Your task to perform on an android device: Go to internet settings Image 0: 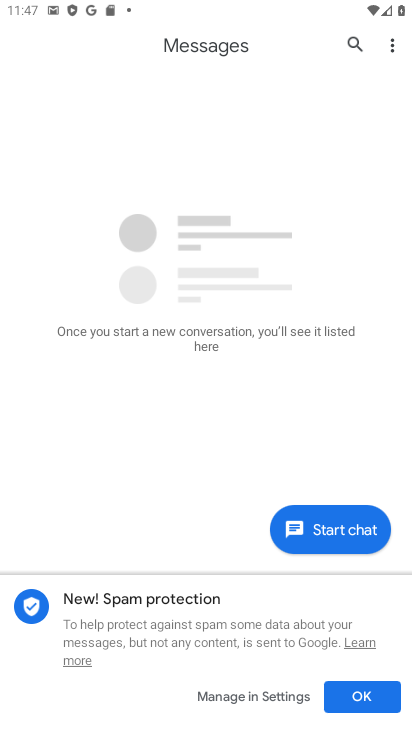
Step 0: press home button
Your task to perform on an android device: Go to internet settings Image 1: 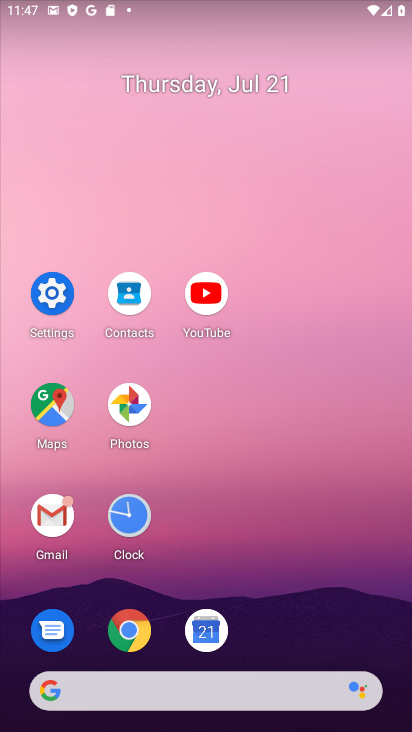
Step 1: click (54, 286)
Your task to perform on an android device: Go to internet settings Image 2: 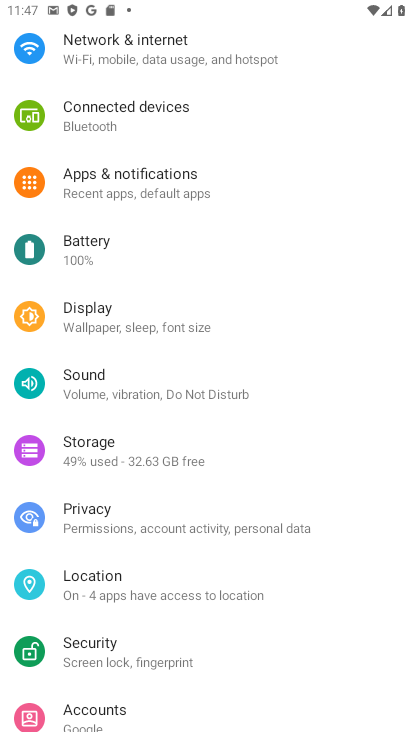
Step 2: click (131, 37)
Your task to perform on an android device: Go to internet settings Image 3: 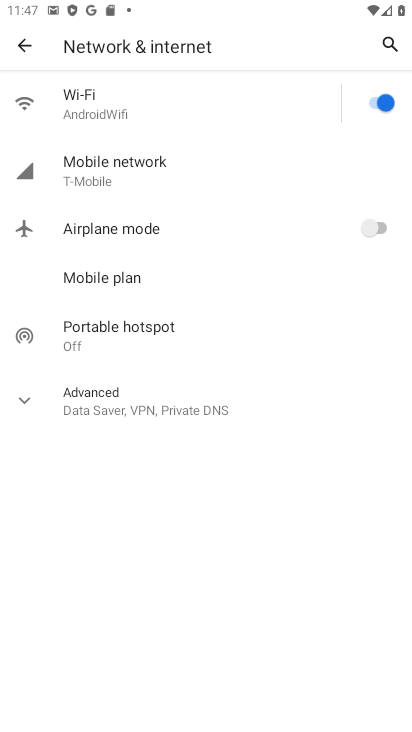
Step 3: task complete